Your task to perform on an android device: Open maps Image 0: 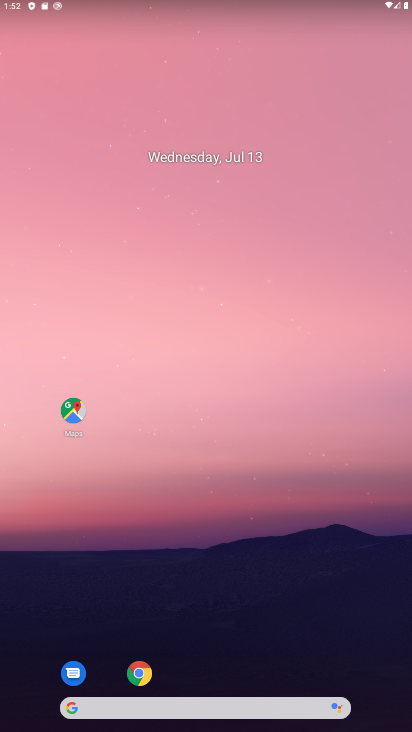
Step 0: click (69, 404)
Your task to perform on an android device: Open maps Image 1: 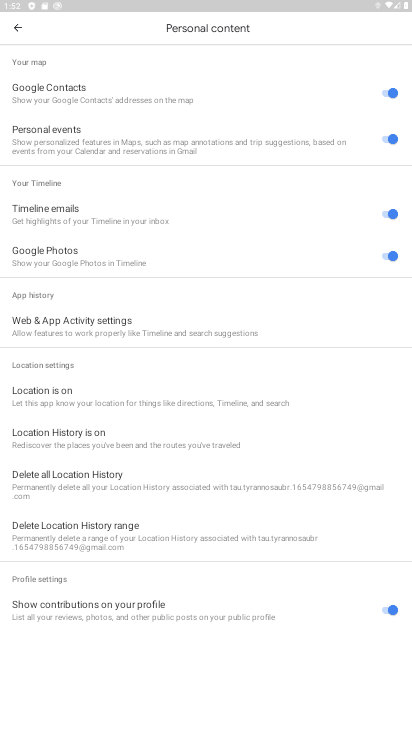
Step 1: click (17, 29)
Your task to perform on an android device: Open maps Image 2: 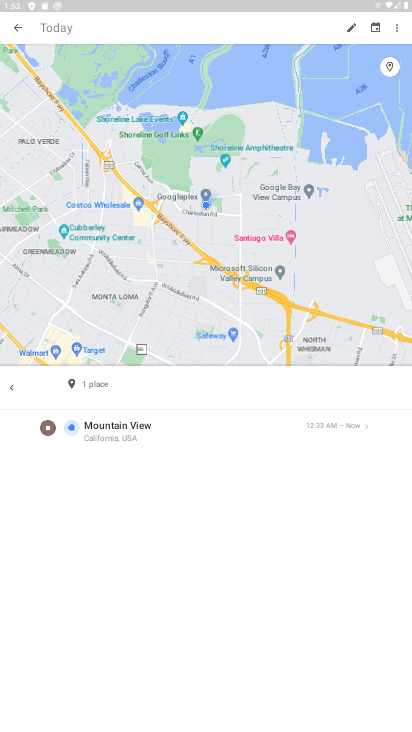
Step 2: task complete